Your task to perform on an android device: Open Chrome and go to settings Image 0: 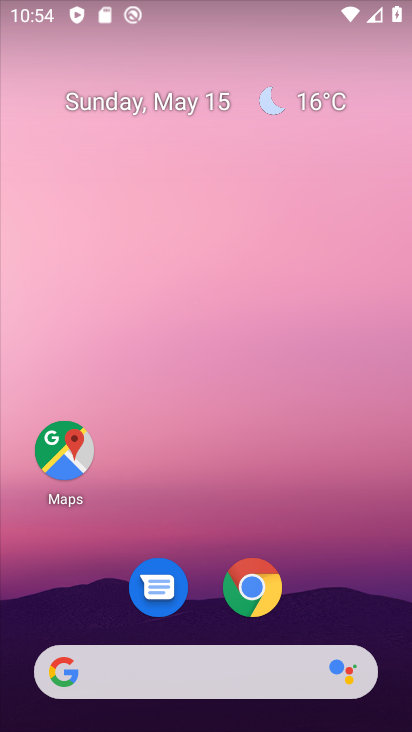
Step 0: drag from (284, 250) to (250, 20)
Your task to perform on an android device: Open Chrome and go to settings Image 1: 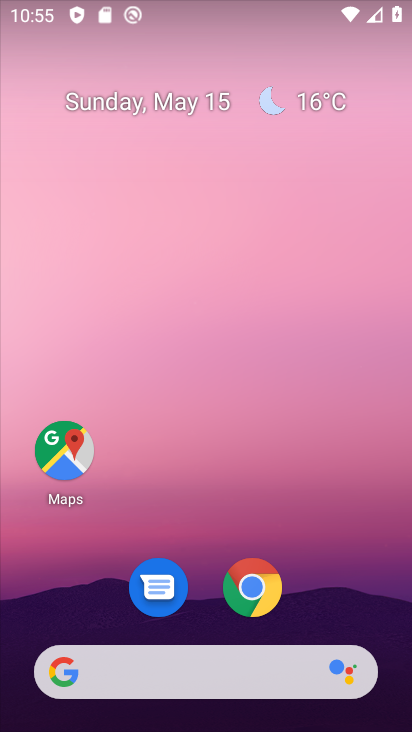
Step 1: drag from (392, 633) to (251, 54)
Your task to perform on an android device: Open Chrome and go to settings Image 2: 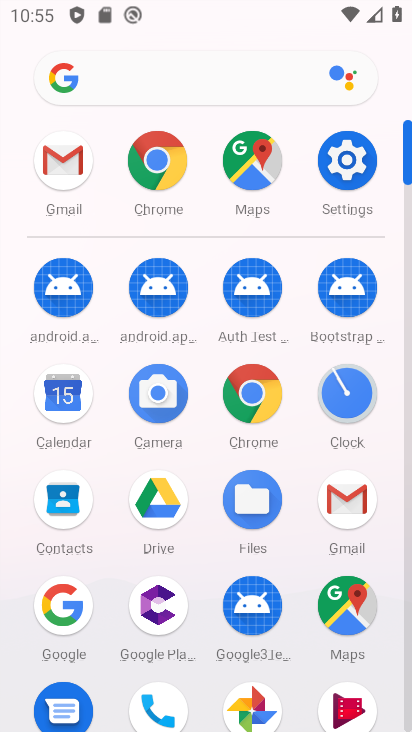
Step 2: drag from (14, 564) to (20, 286)
Your task to perform on an android device: Open Chrome and go to settings Image 3: 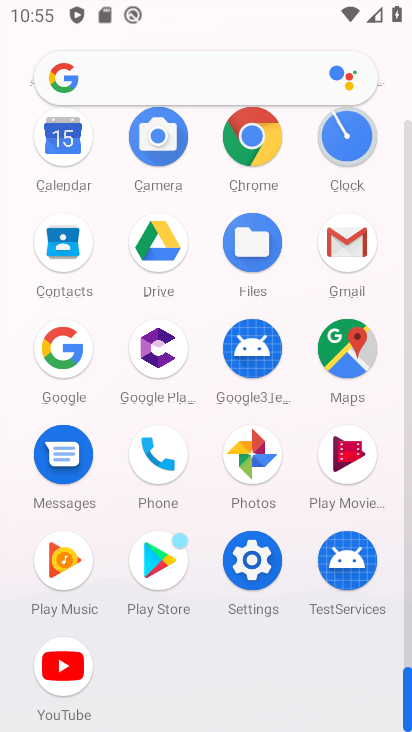
Step 3: click (253, 133)
Your task to perform on an android device: Open Chrome and go to settings Image 4: 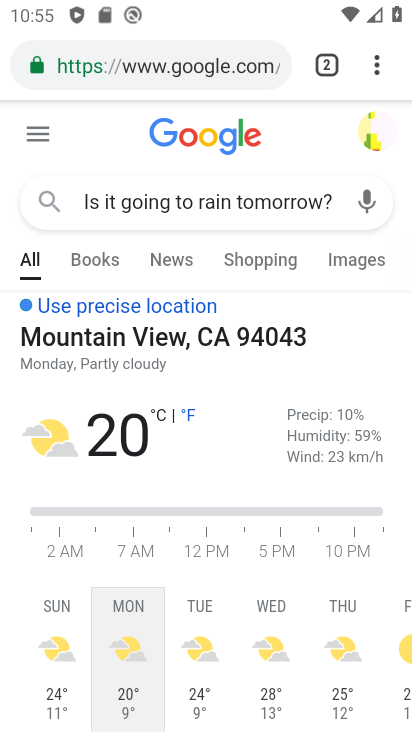
Step 4: task complete